Your task to perform on an android device: Show me recent news Image 0: 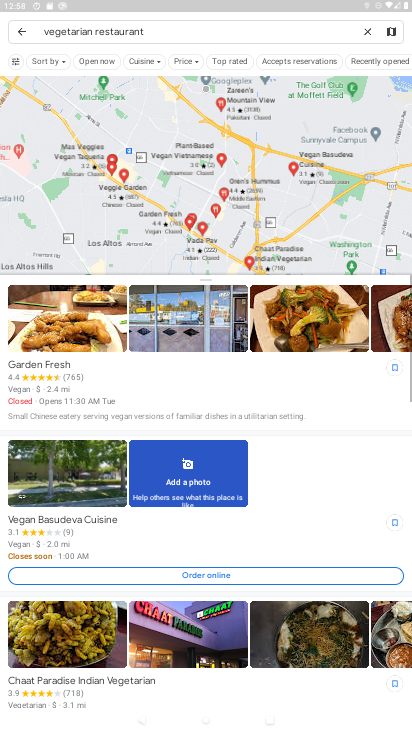
Step 0: drag from (31, 694) to (133, 304)
Your task to perform on an android device: Show me recent news Image 1: 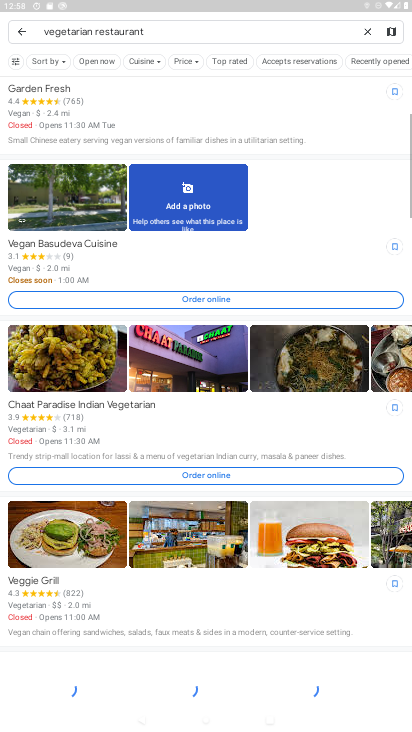
Step 1: press home button
Your task to perform on an android device: Show me recent news Image 2: 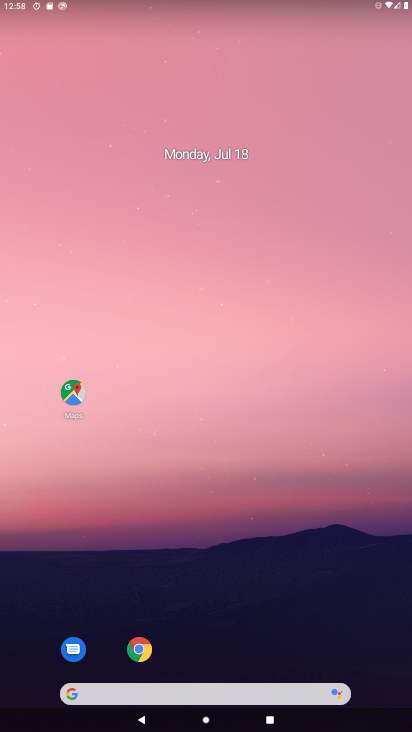
Step 2: click (110, 690)
Your task to perform on an android device: Show me recent news Image 3: 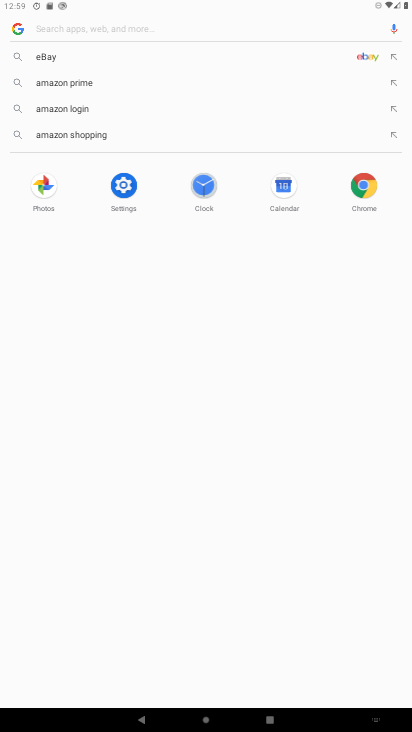
Step 3: type " recent news"
Your task to perform on an android device: Show me recent news Image 4: 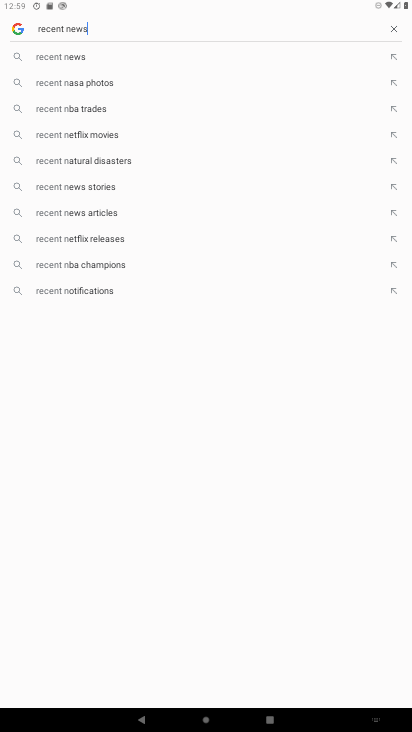
Step 4: type ""
Your task to perform on an android device: Show me recent news Image 5: 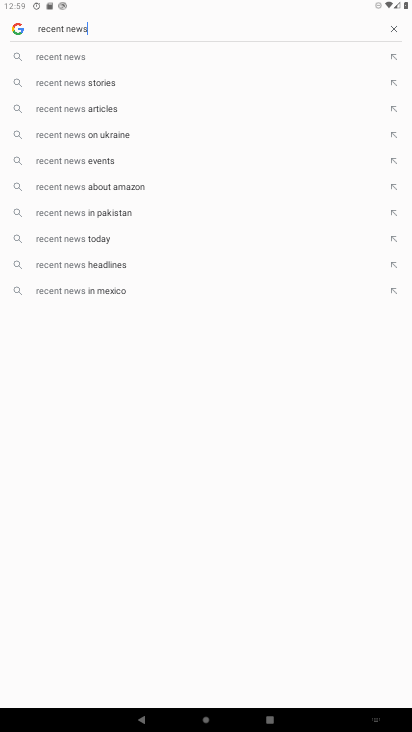
Step 5: click (61, 59)
Your task to perform on an android device: Show me recent news Image 6: 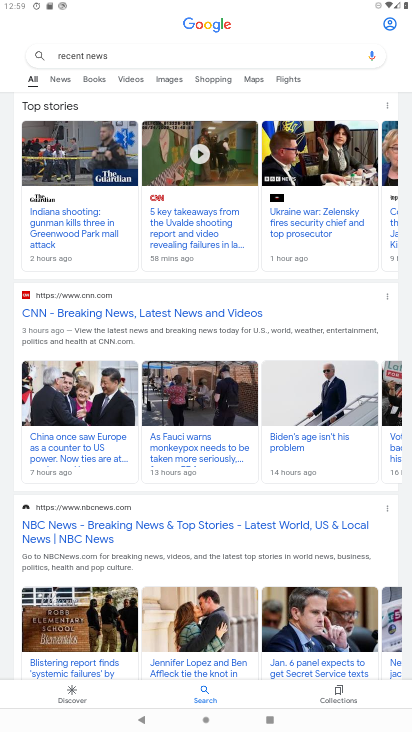
Step 6: task complete